Your task to perform on an android device: turn on the 24-hour format for clock Image 0: 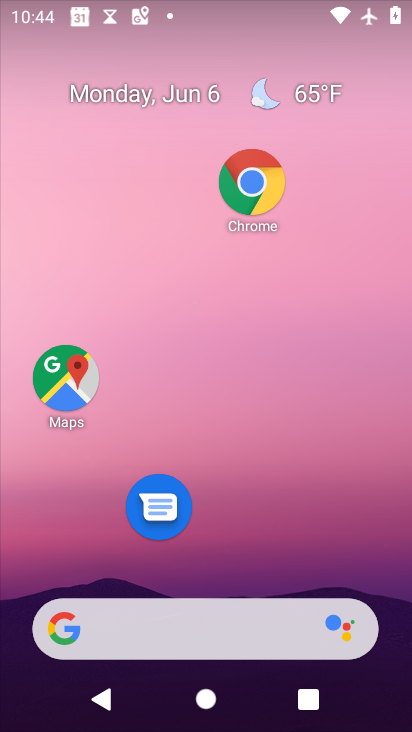
Step 0: drag from (253, 372) to (242, 240)
Your task to perform on an android device: turn on the 24-hour format for clock Image 1: 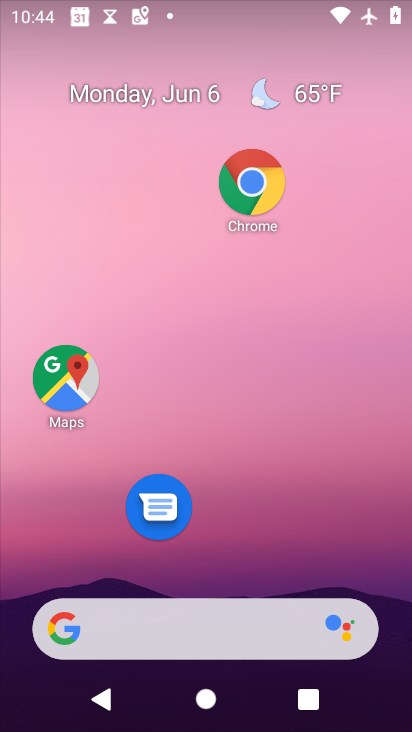
Step 1: drag from (261, 281) to (267, 222)
Your task to perform on an android device: turn on the 24-hour format for clock Image 2: 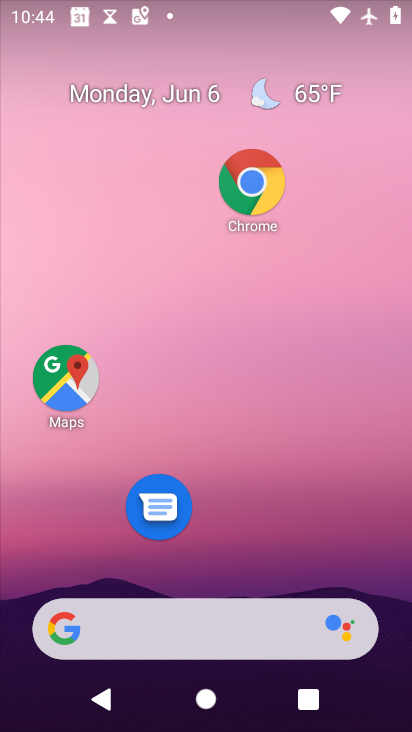
Step 2: drag from (255, 551) to (250, 190)
Your task to perform on an android device: turn on the 24-hour format for clock Image 3: 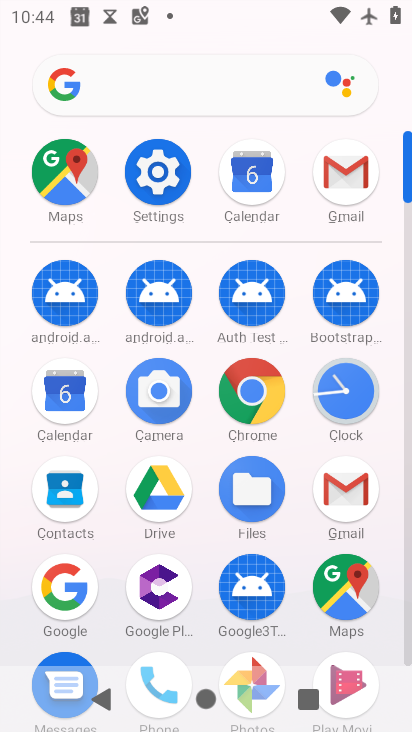
Step 3: click (348, 391)
Your task to perform on an android device: turn on the 24-hour format for clock Image 4: 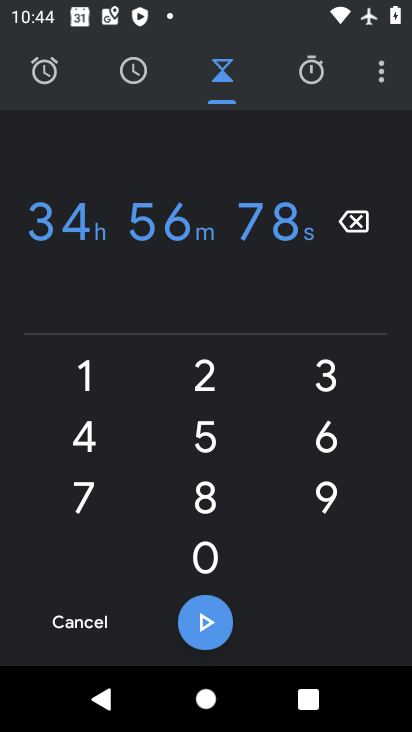
Step 4: click (384, 71)
Your task to perform on an android device: turn on the 24-hour format for clock Image 5: 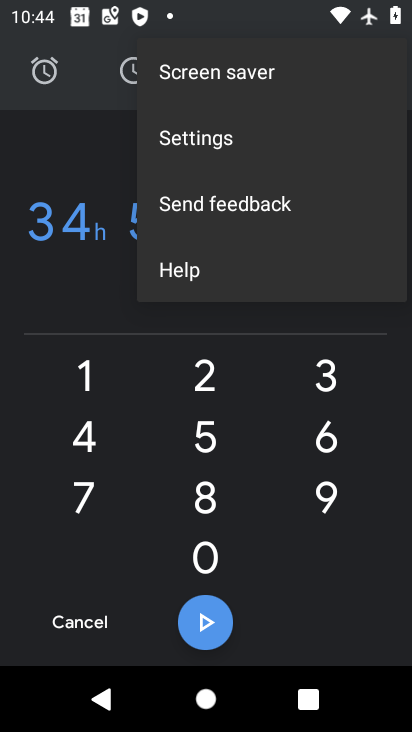
Step 5: click (212, 142)
Your task to perform on an android device: turn on the 24-hour format for clock Image 6: 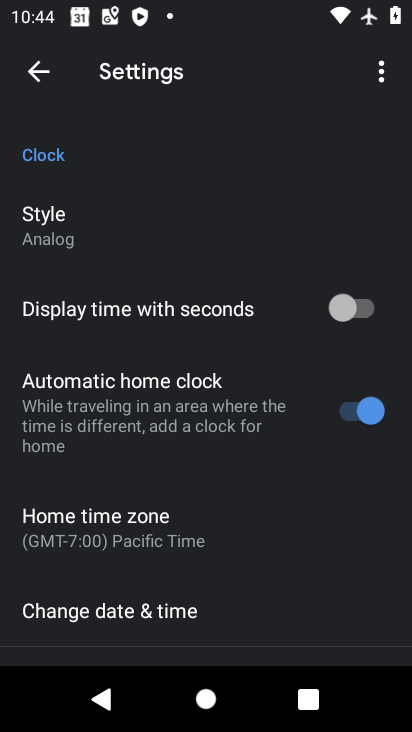
Step 6: drag from (199, 594) to (203, 361)
Your task to perform on an android device: turn on the 24-hour format for clock Image 7: 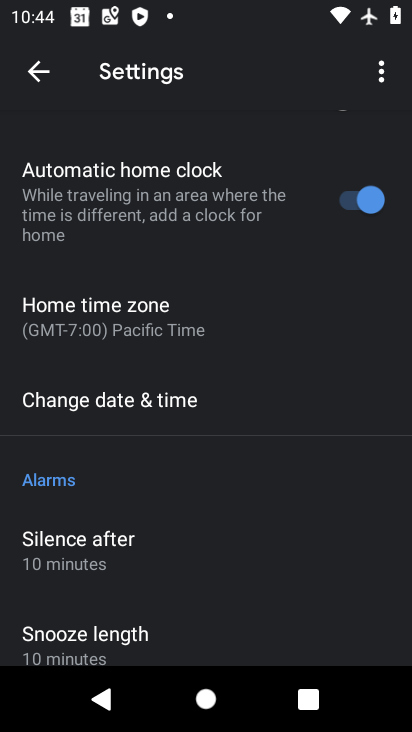
Step 7: click (177, 384)
Your task to perform on an android device: turn on the 24-hour format for clock Image 8: 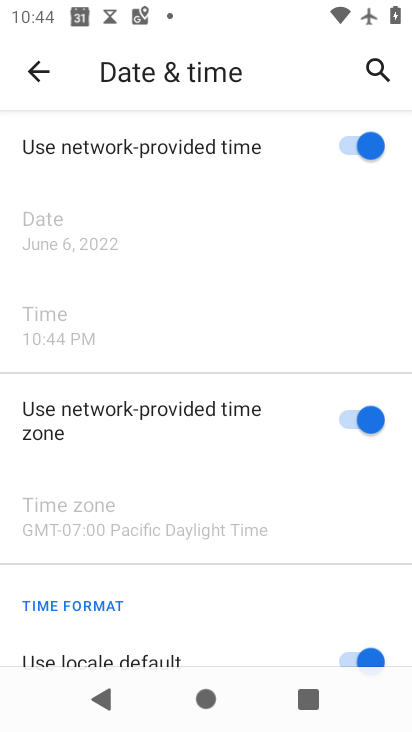
Step 8: drag from (217, 550) to (243, 277)
Your task to perform on an android device: turn on the 24-hour format for clock Image 9: 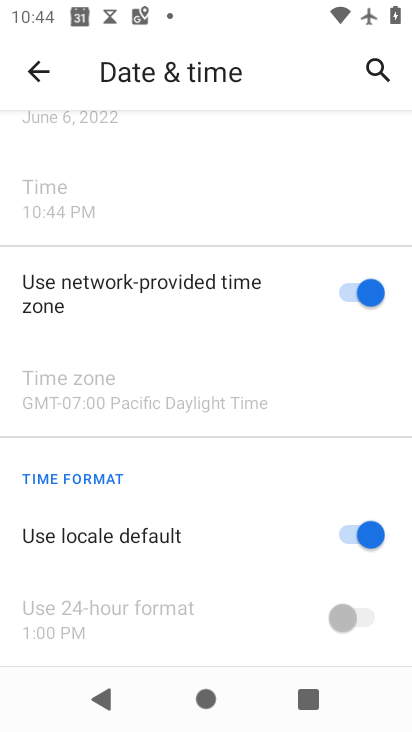
Step 9: click (358, 509)
Your task to perform on an android device: turn on the 24-hour format for clock Image 10: 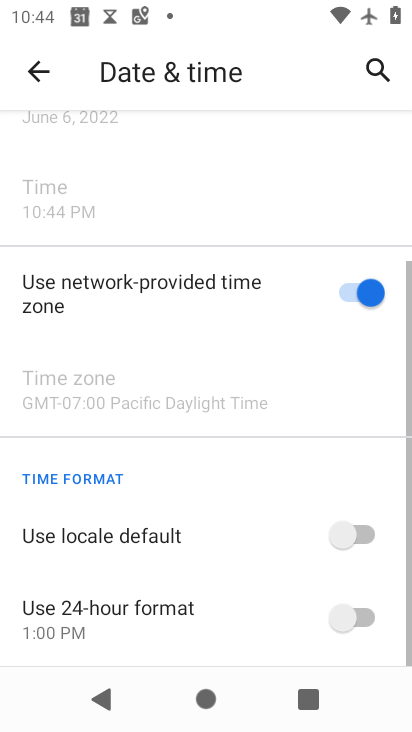
Step 10: click (360, 612)
Your task to perform on an android device: turn on the 24-hour format for clock Image 11: 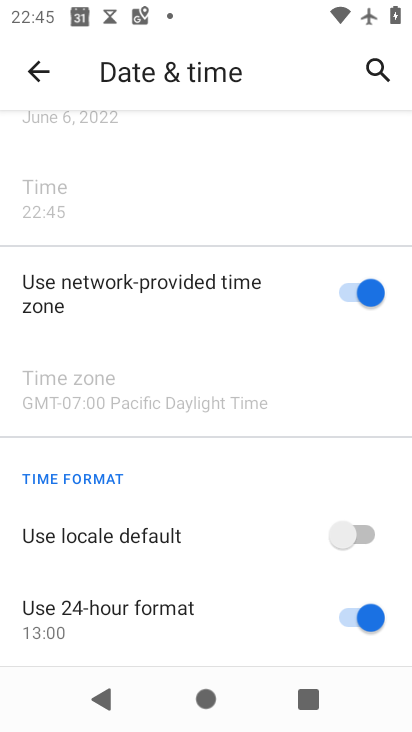
Step 11: task complete